Your task to perform on an android device: turn on data saver in the chrome app Image 0: 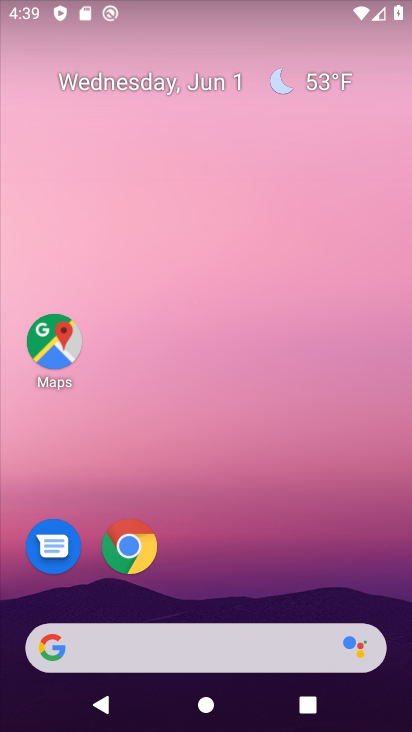
Step 0: drag from (301, 561) to (215, 20)
Your task to perform on an android device: turn on data saver in the chrome app Image 1: 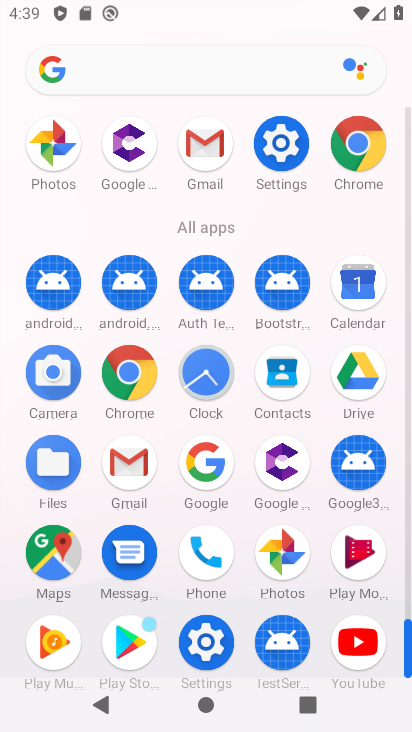
Step 1: drag from (7, 599) to (2, 208)
Your task to perform on an android device: turn on data saver in the chrome app Image 2: 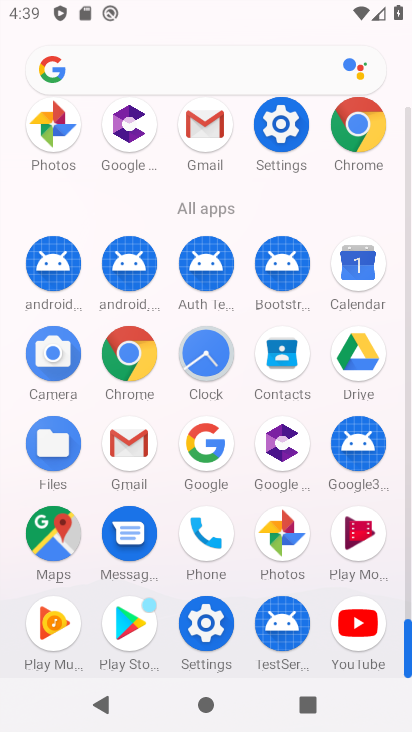
Step 2: click (125, 348)
Your task to perform on an android device: turn on data saver in the chrome app Image 3: 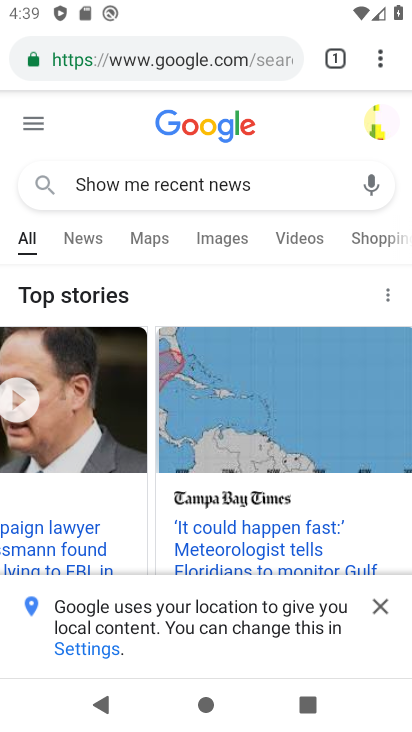
Step 3: drag from (383, 55) to (191, 572)
Your task to perform on an android device: turn on data saver in the chrome app Image 4: 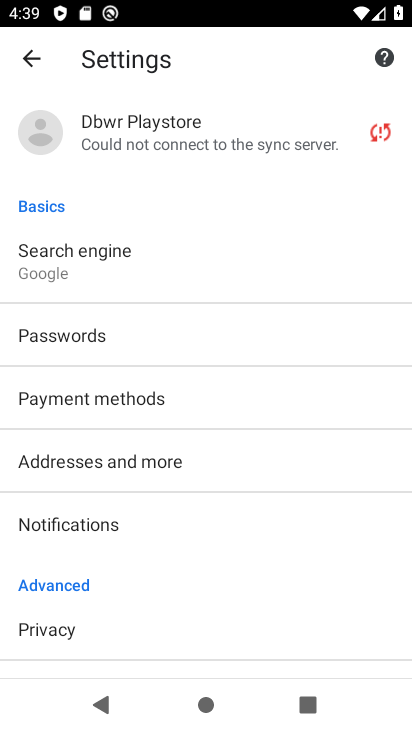
Step 4: drag from (204, 605) to (239, 241)
Your task to perform on an android device: turn on data saver in the chrome app Image 5: 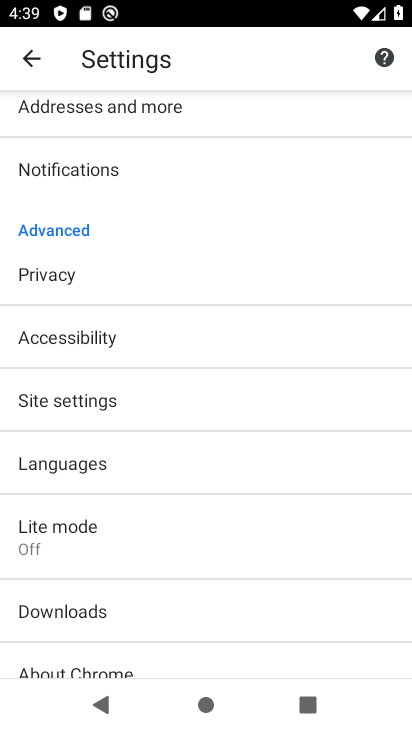
Step 5: drag from (192, 523) to (180, 237)
Your task to perform on an android device: turn on data saver in the chrome app Image 6: 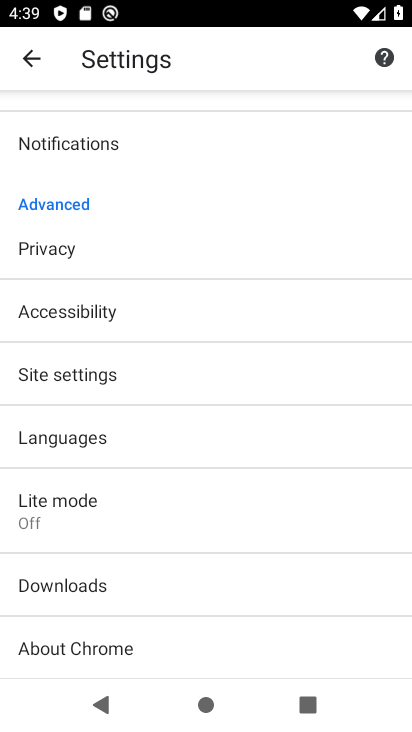
Step 6: click (108, 502)
Your task to perform on an android device: turn on data saver in the chrome app Image 7: 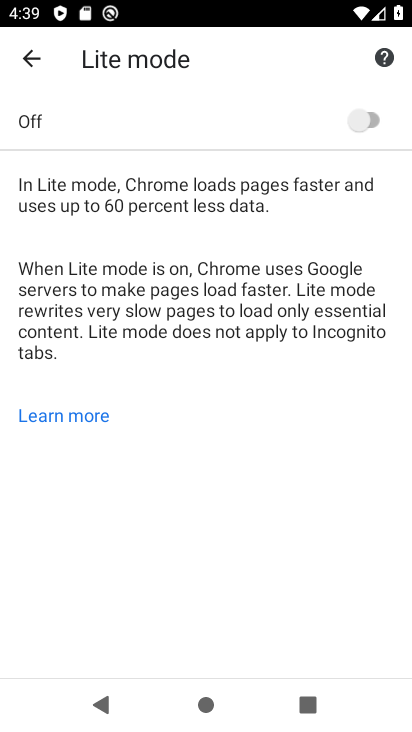
Step 7: click (354, 115)
Your task to perform on an android device: turn on data saver in the chrome app Image 8: 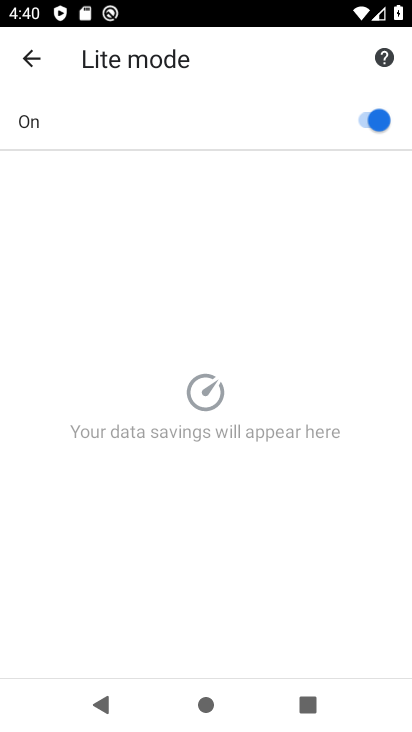
Step 8: task complete